Your task to perform on an android device: Open Amazon Image 0: 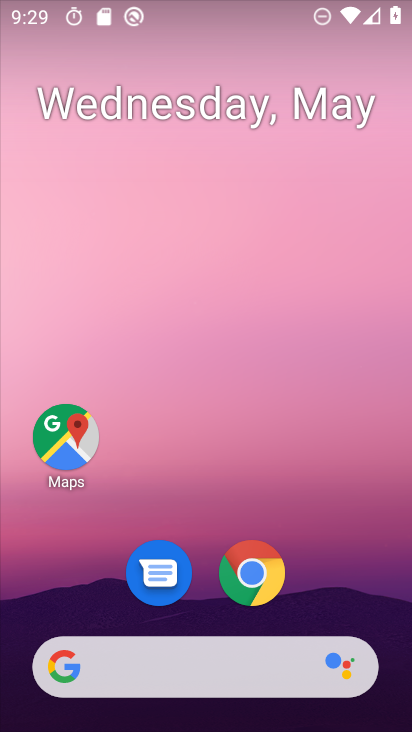
Step 0: click (257, 566)
Your task to perform on an android device: Open Amazon Image 1: 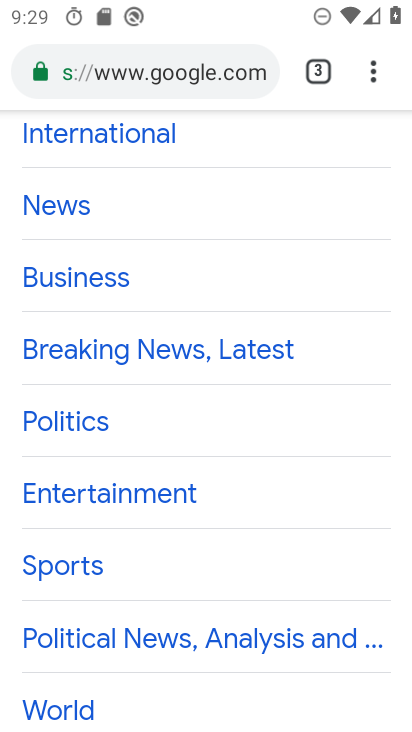
Step 1: click (260, 68)
Your task to perform on an android device: Open Amazon Image 2: 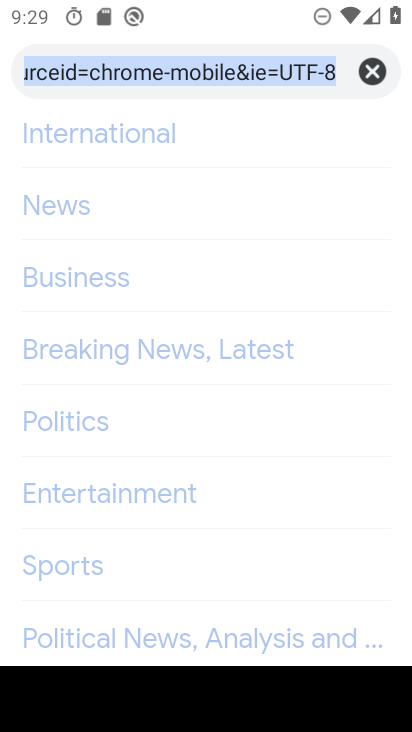
Step 2: click (376, 70)
Your task to perform on an android device: Open Amazon Image 3: 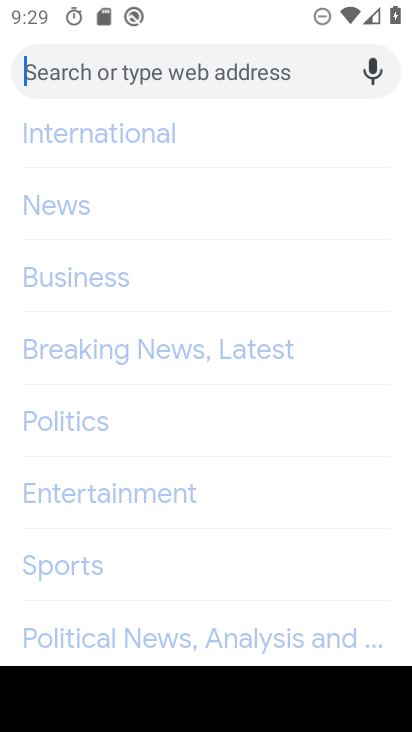
Step 3: type "Amazon"
Your task to perform on an android device: Open Amazon Image 4: 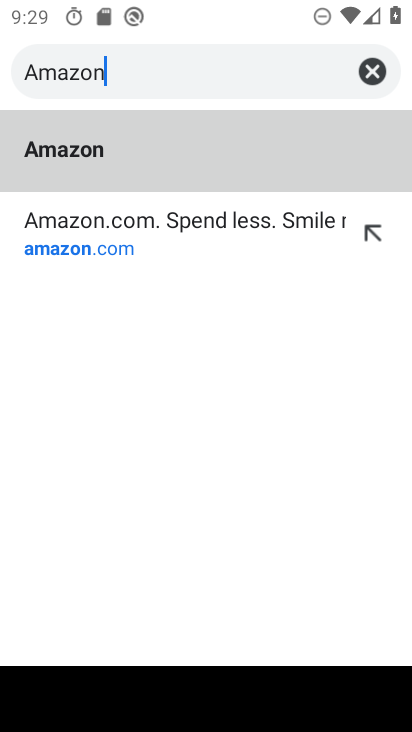
Step 4: click (48, 156)
Your task to perform on an android device: Open Amazon Image 5: 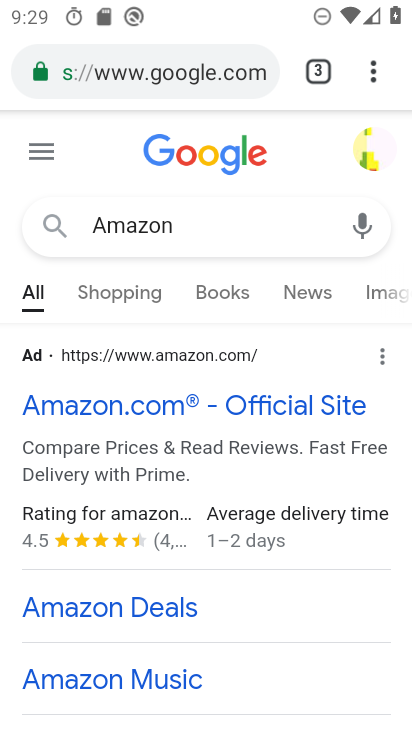
Step 5: task complete